Your task to perform on an android device: search for starred emails in the gmail app Image 0: 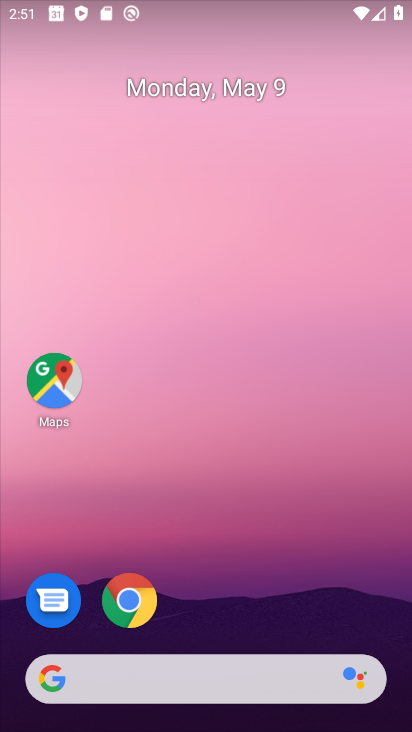
Step 0: click (232, 208)
Your task to perform on an android device: search for starred emails in the gmail app Image 1: 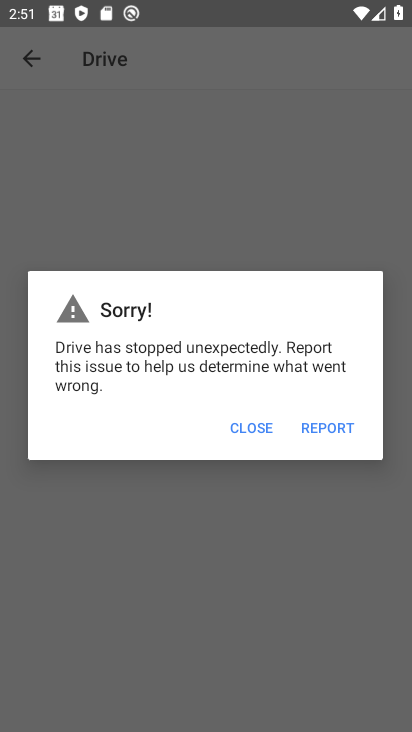
Step 1: press home button
Your task to perform on an android device: search for starred emails in the gmail app Image 2: 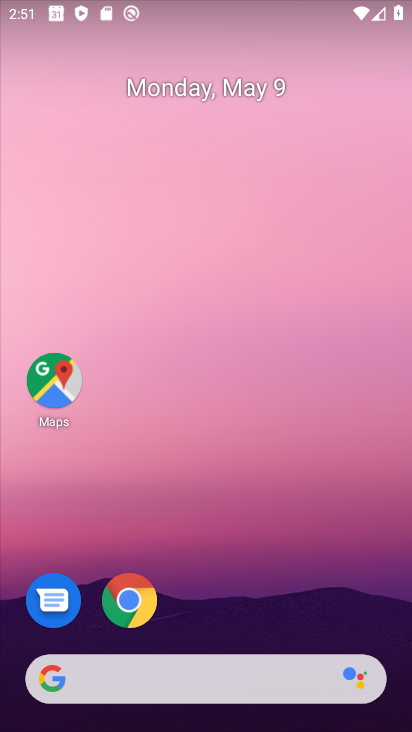
Step 2: drag from (233, 724) to (226, 287)
Your task to perform on an android device: search for starred emails in the gmail app Image 3: 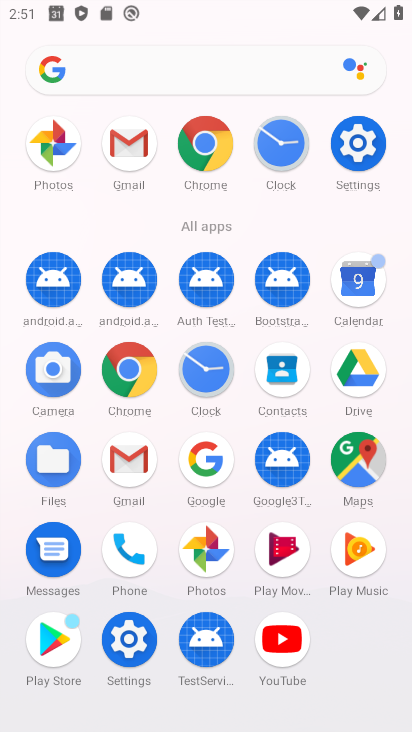
Step 3: click (124, 148)
Your task to perform on an android device: search for starred emails in the gmail app Image 4: 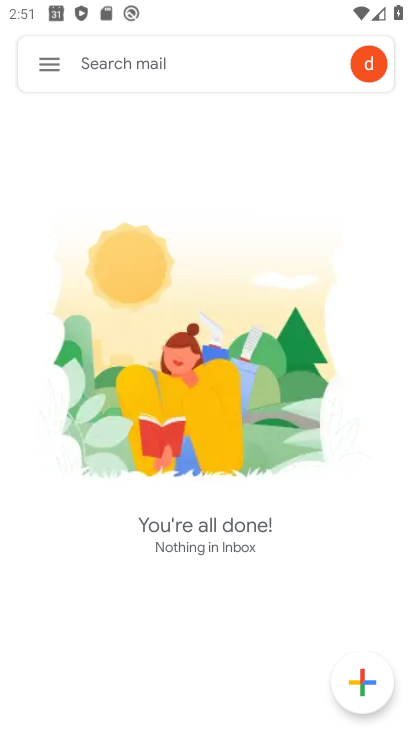
Step 4: click (44, 66)
Your task to perform on an android device: search for starred emails in the gmail app Image 5: 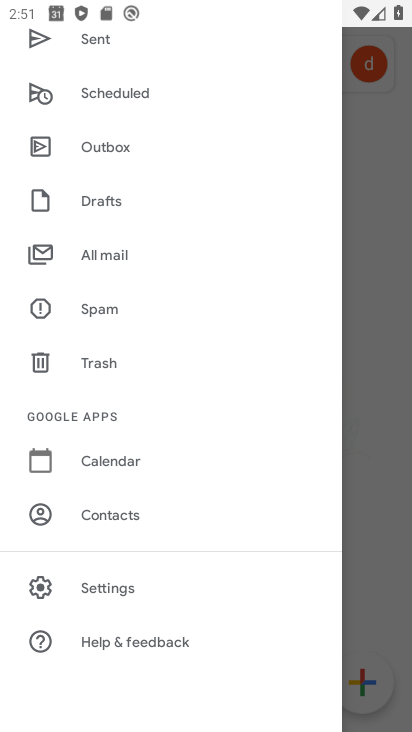
Step 5: drag from (197, 128) to (179, 326)
Your task to perform on an android device: search for starred emails in the gmail app Image 6: 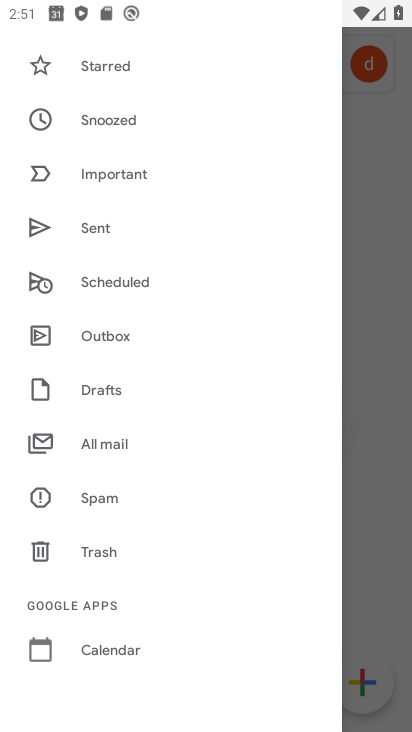
Step 6: click (95, 64)
Your task to perform on an android device: search for starred emails in the gmail app Image 7: 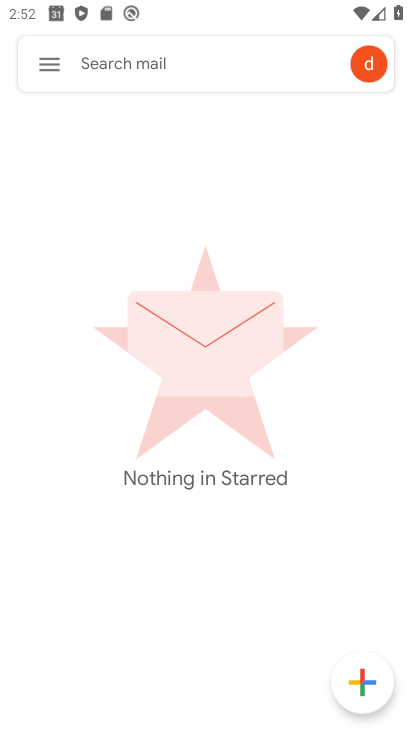
Step 7: task complete